Your task to perform on an android device: Search for Mexican restaurants on Maps Image 0: 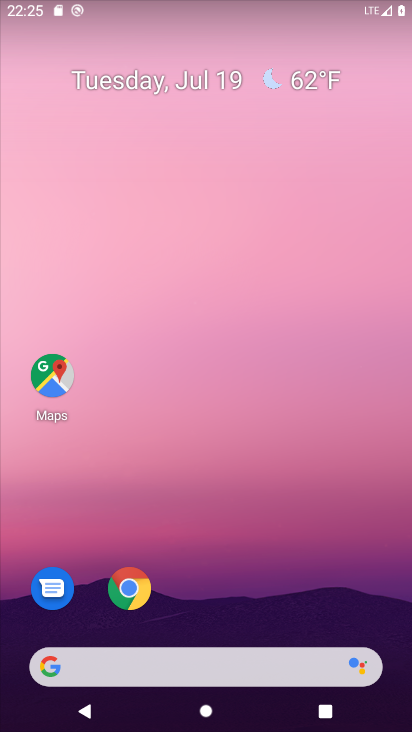
Step 0: click (56, 371)
Your task to perform on an android device: Search for Mexican restaurants on Maps Image 1: 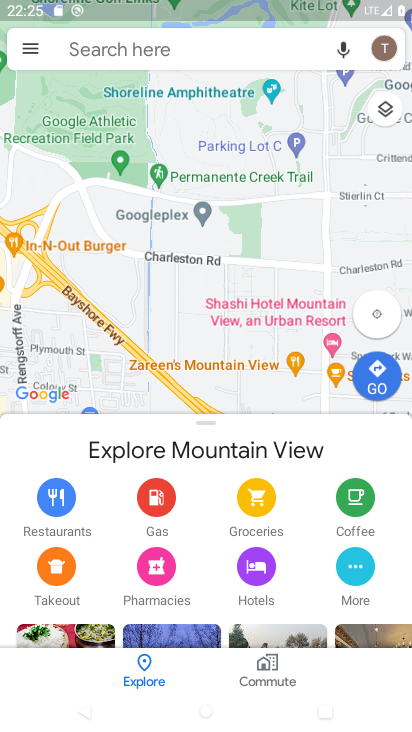
Step 1: click (187, 40)
Your task to perform on an android device: Search for Mexican restaurants on Maps Image 2: 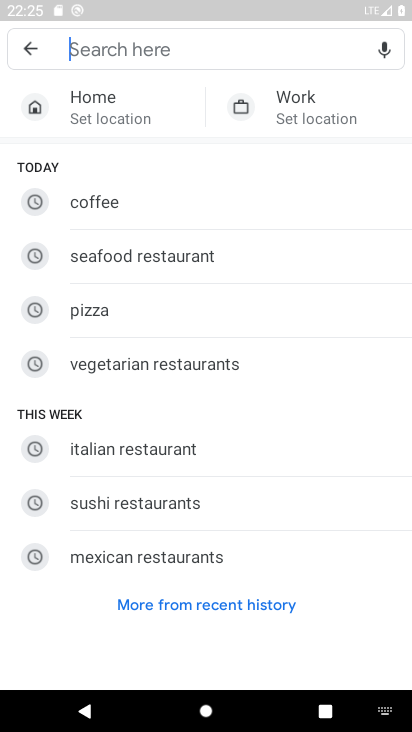
Step 2: click (106, 559)
Your task to perform on an android device: Search for Mexican restaurants on Maps Image 3: 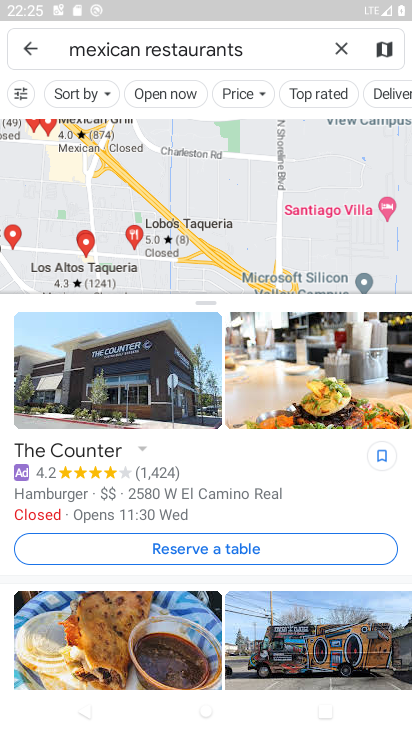
Step 3: task complete